Your task to perform on an android device: turn off translation in the chrome app Image 0: 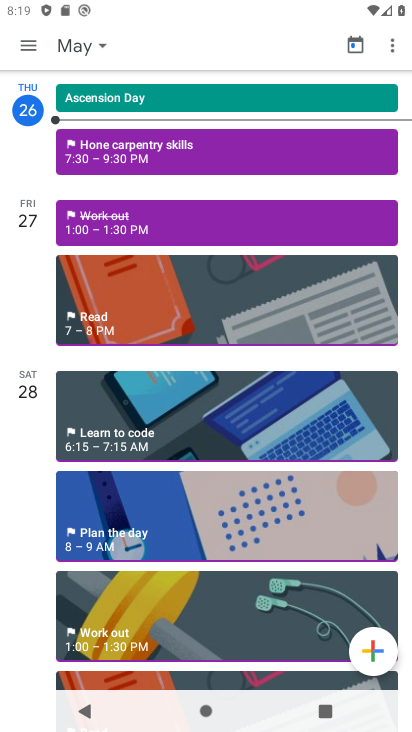
Step 0: press home button
Your task to perform on an android device: turn off translation in the chrome app Image 1: 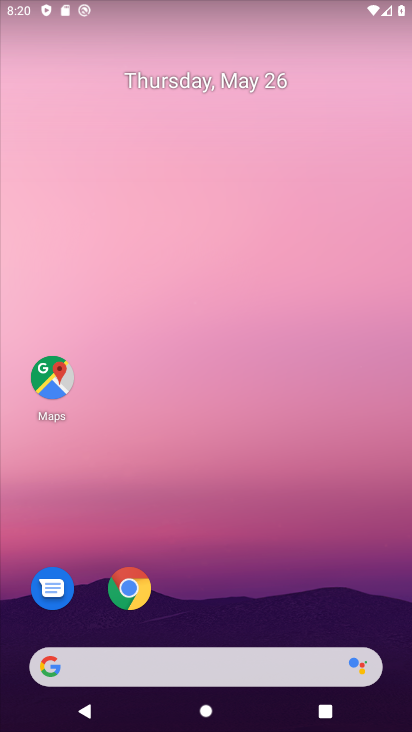
Step 1: click (130, 587)
Your task to perform on an android device: turn off translation in the chrome app Image 2: 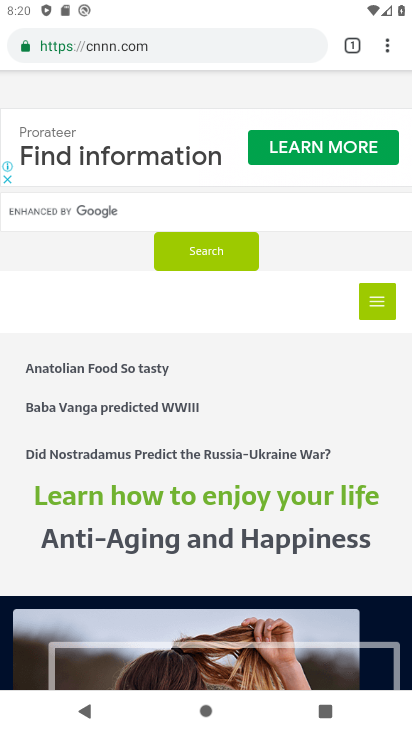
Step 2: click (386, 48)
Your task to perform on an android device: turn off translation in the chrome app Image 3: 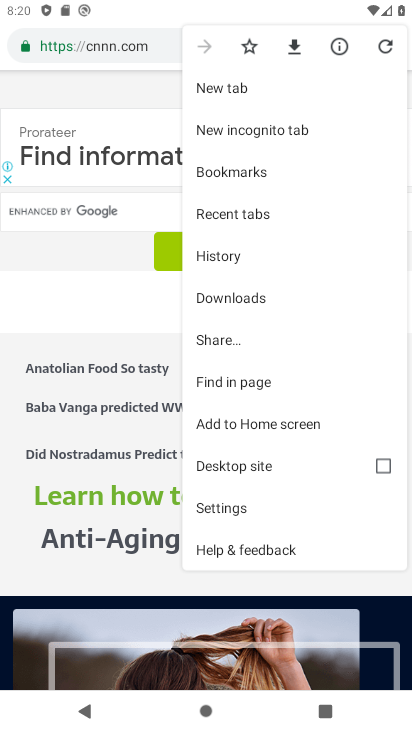
Step 3: click (252, 508)
Your task to perform on an android device: turn off translation in the chrome app Image 4: 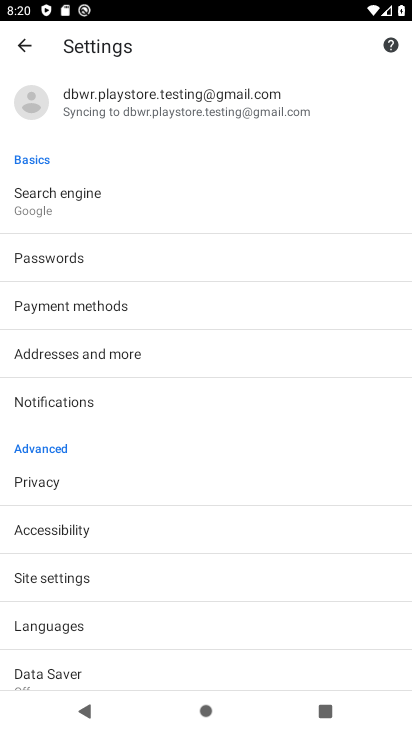
Step 4: click (78, 626)
Your task to perform on an android device: turn off translation in the chrome app Image 5: 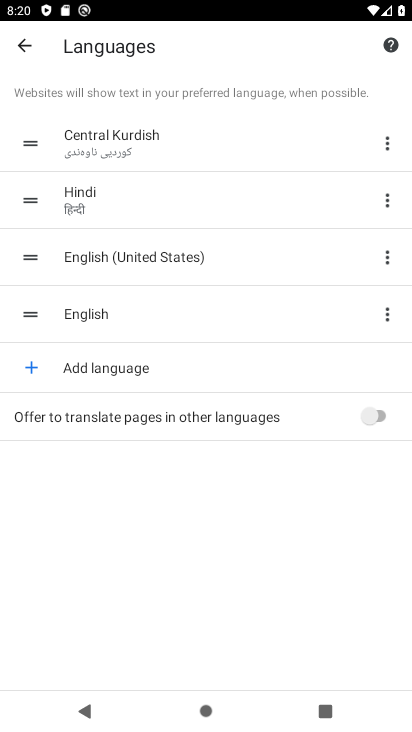
Step 5: task complete